Your task to perform on an android device: check battery use Image 0: 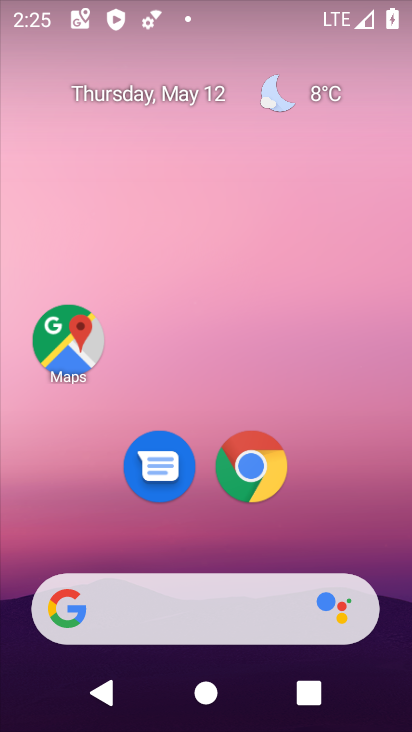
Step 0: drag from (313, 488) to (89, 128)
Your task to perform on an android device: check battery use Image 1: 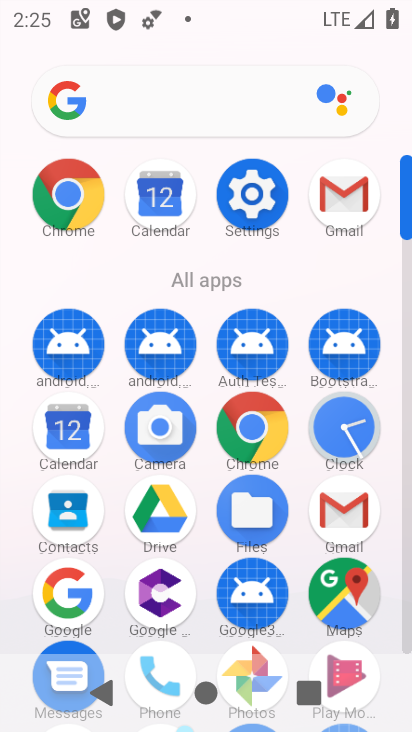
Step 1: click (245, 197)
Your task to perform on an android device: check battery use Image 2: 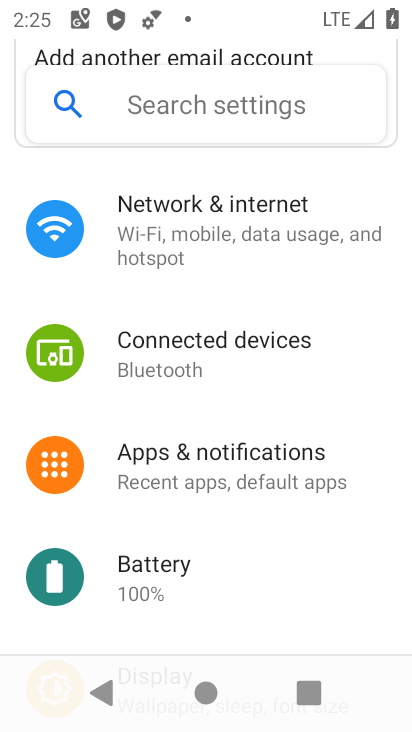
Step 2: click (172, 567)
Your task to perform on an android device: check battery use Image 3: 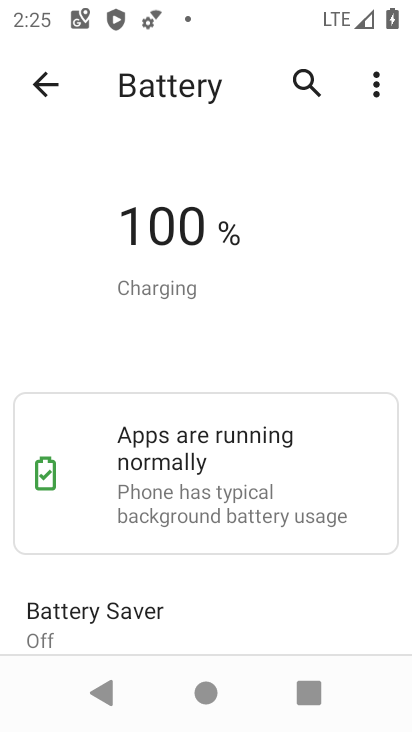
Step 3: task complete